Your task to perform on an android device: Open Android settings Image 0: 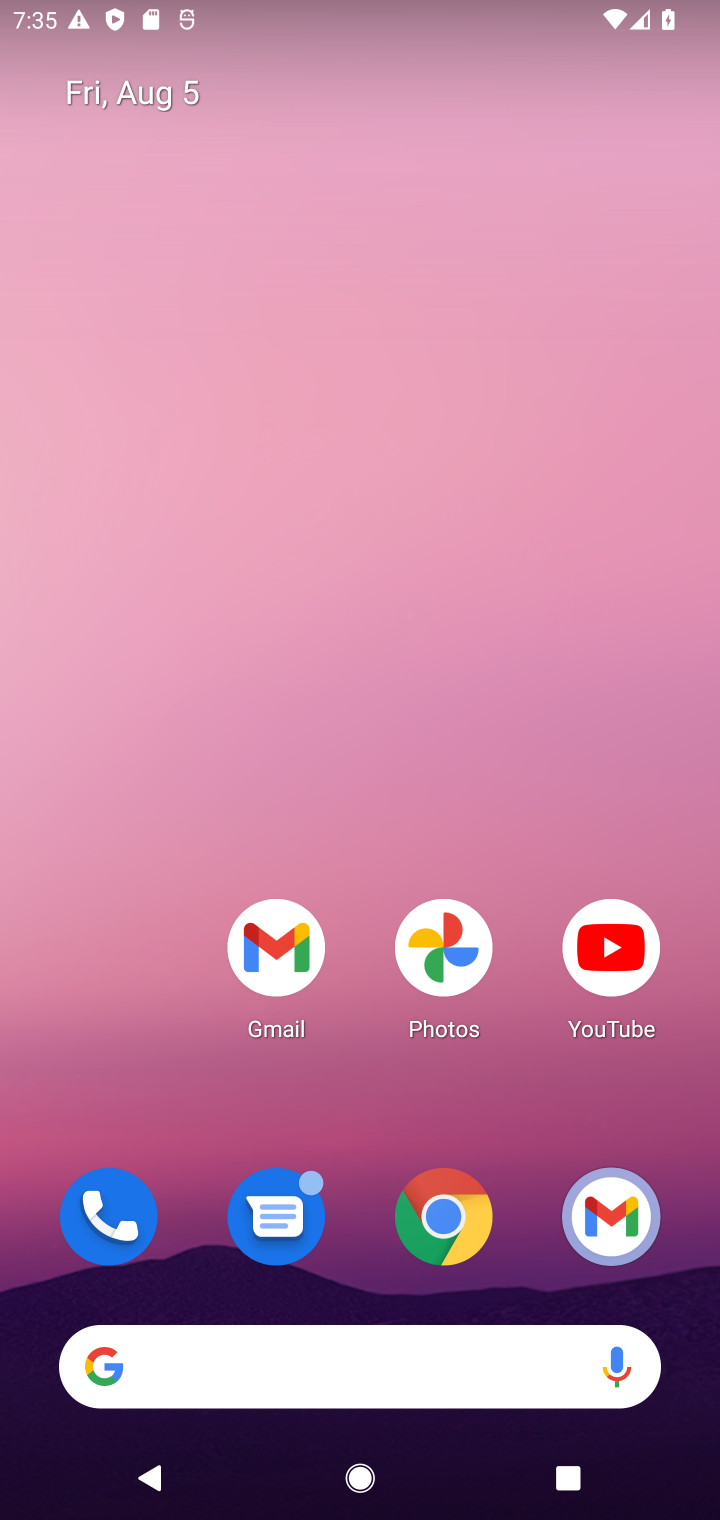
Step 0: drag from (362, 1134) to (309, 246)
Your task to perform on an android device: Open Android settings Image 1: 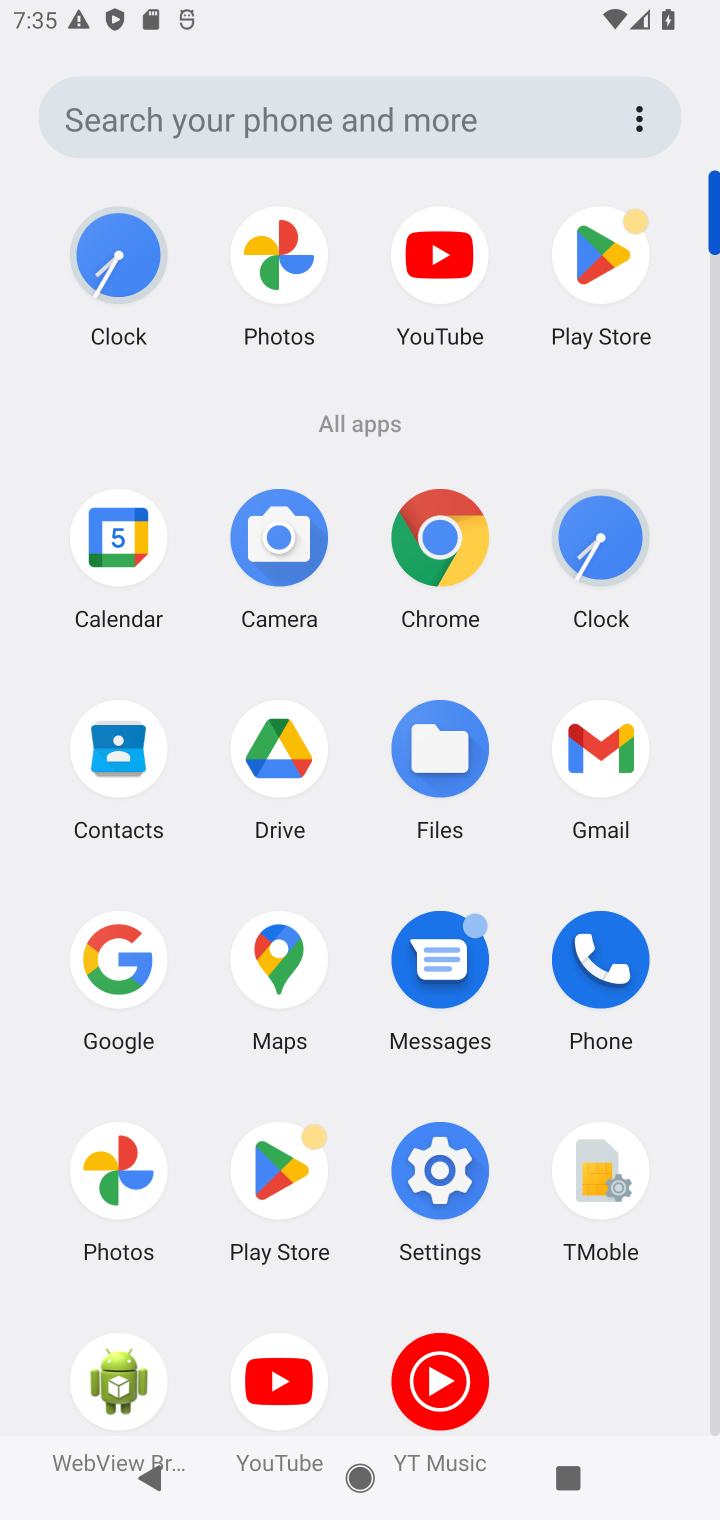
Step 1: click (441, 1189)
Your task to perform on an android device: Open Android settings Image 2: 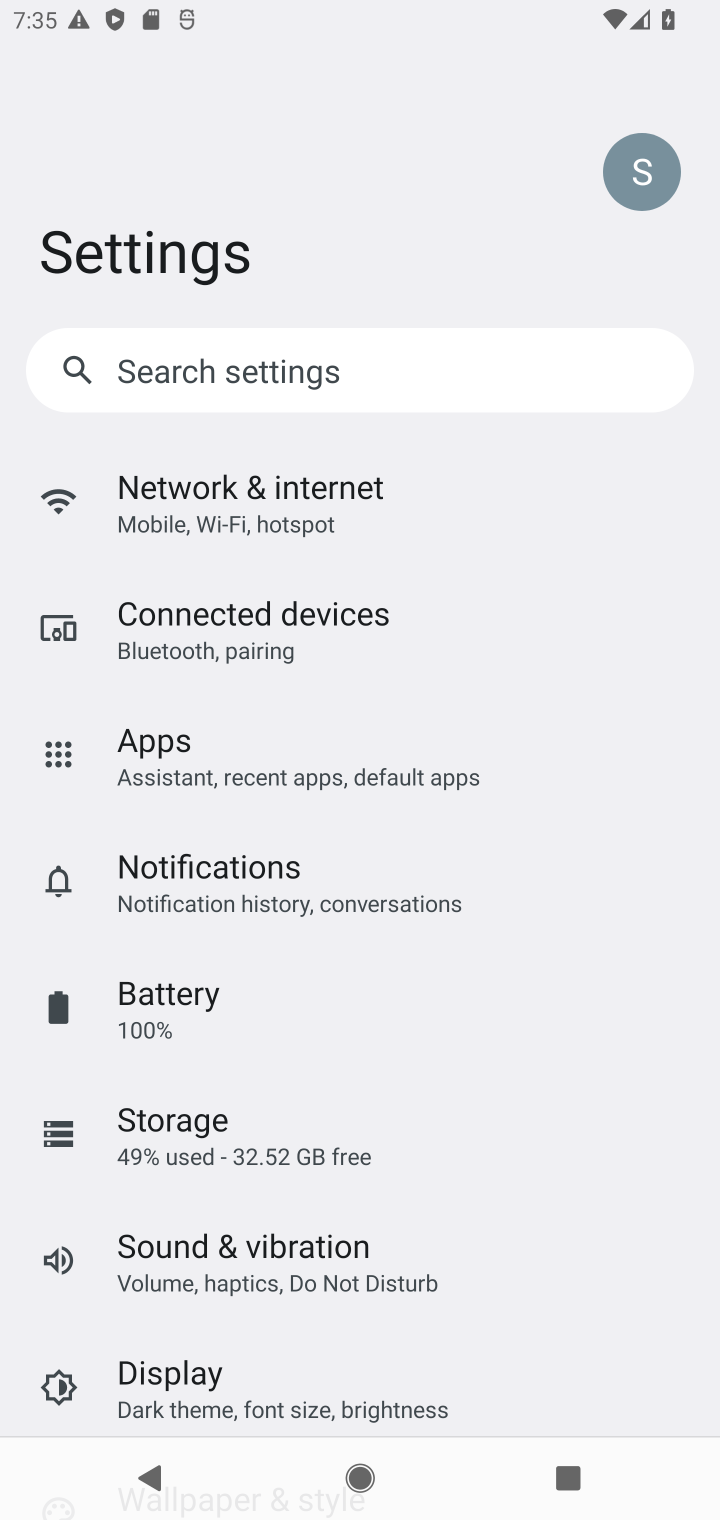
Step 2: drag from (418, 1235) to (318, 440)
Your task to perform on an android device: Open Android settings Image 3: 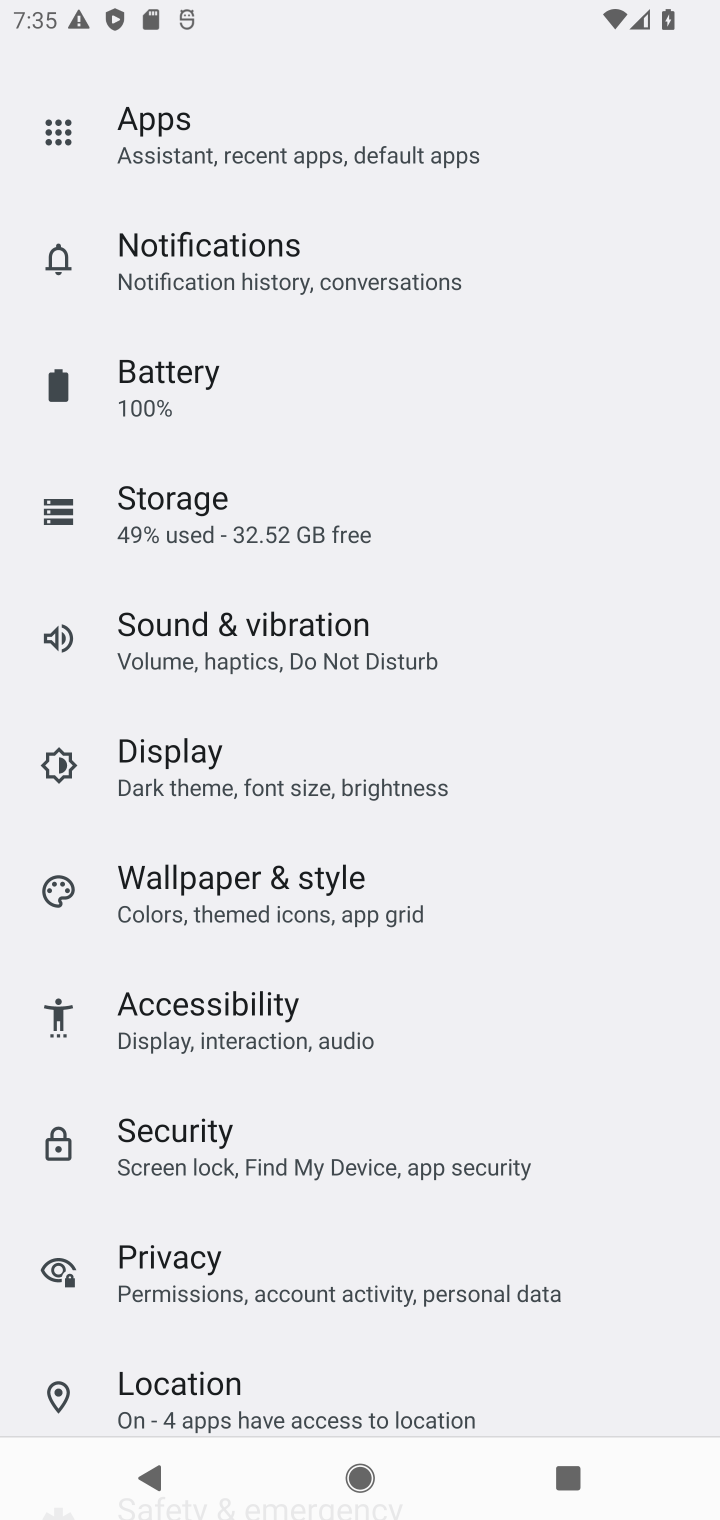
Step 3: drag from (235, 1246) to (204, 630)
Your task to perform on an android device: Open Android settings Image 4: 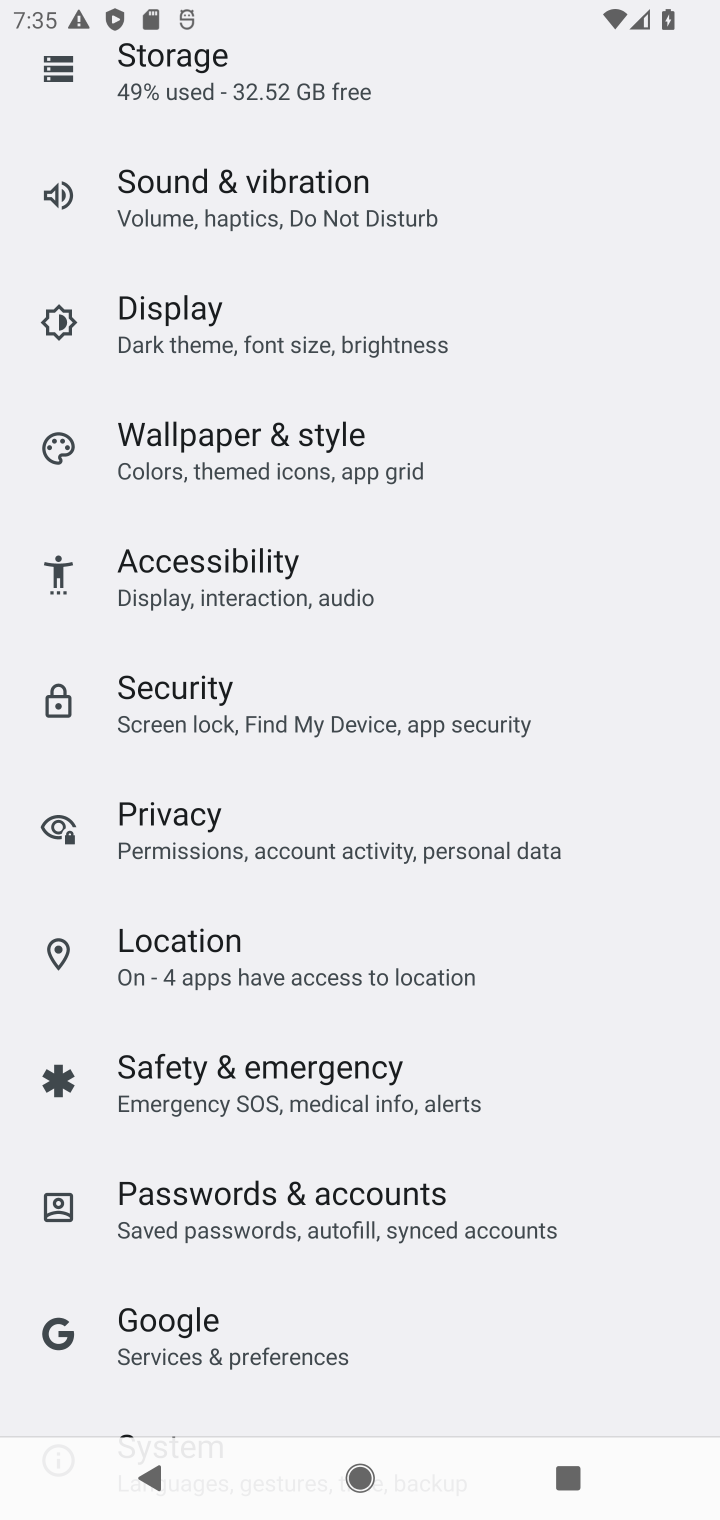
Step 4: drag from (299, 1350) to (312, 663)
Your task to perform on an android device: Open Android settings Image 5: 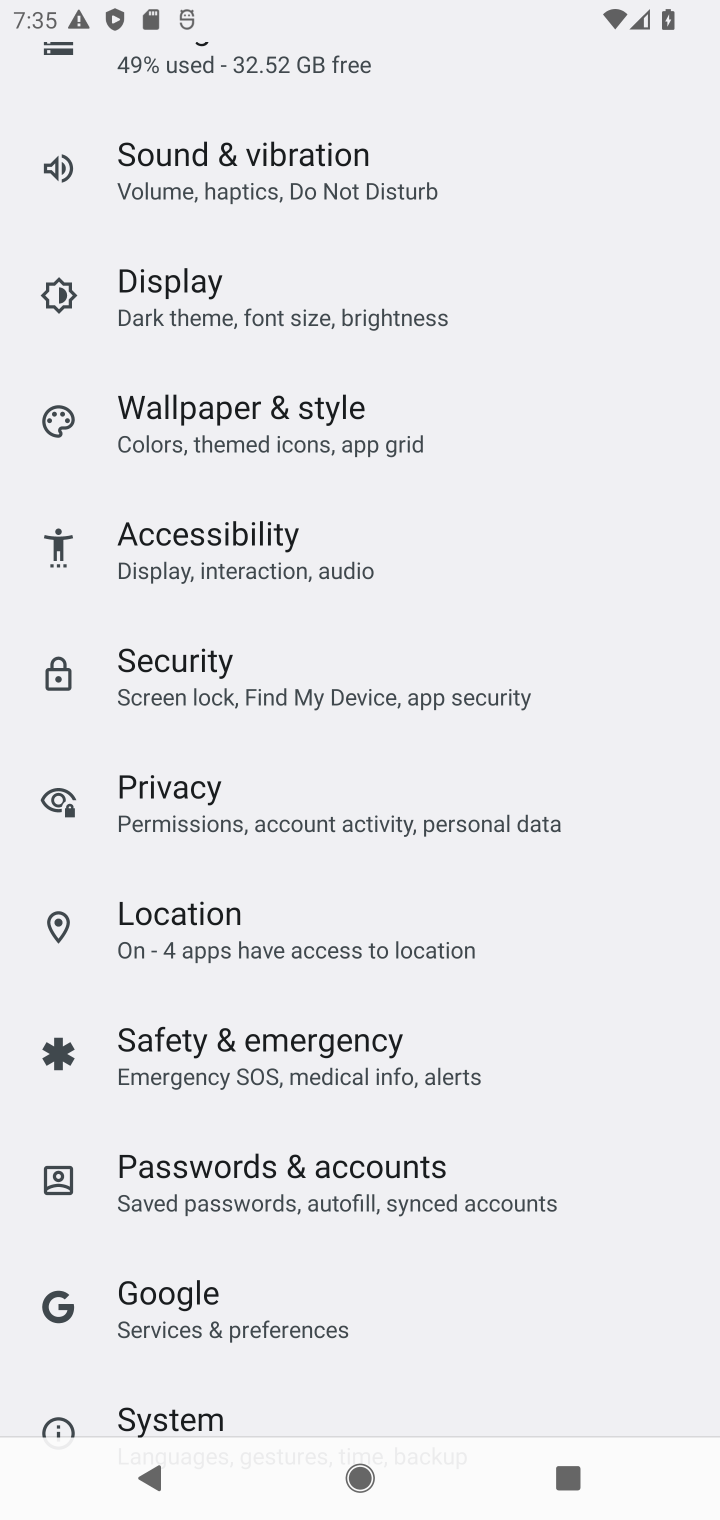
Step 5: click (242, 1408)
Your task to perform on an android device: Open Android settings Image 6: 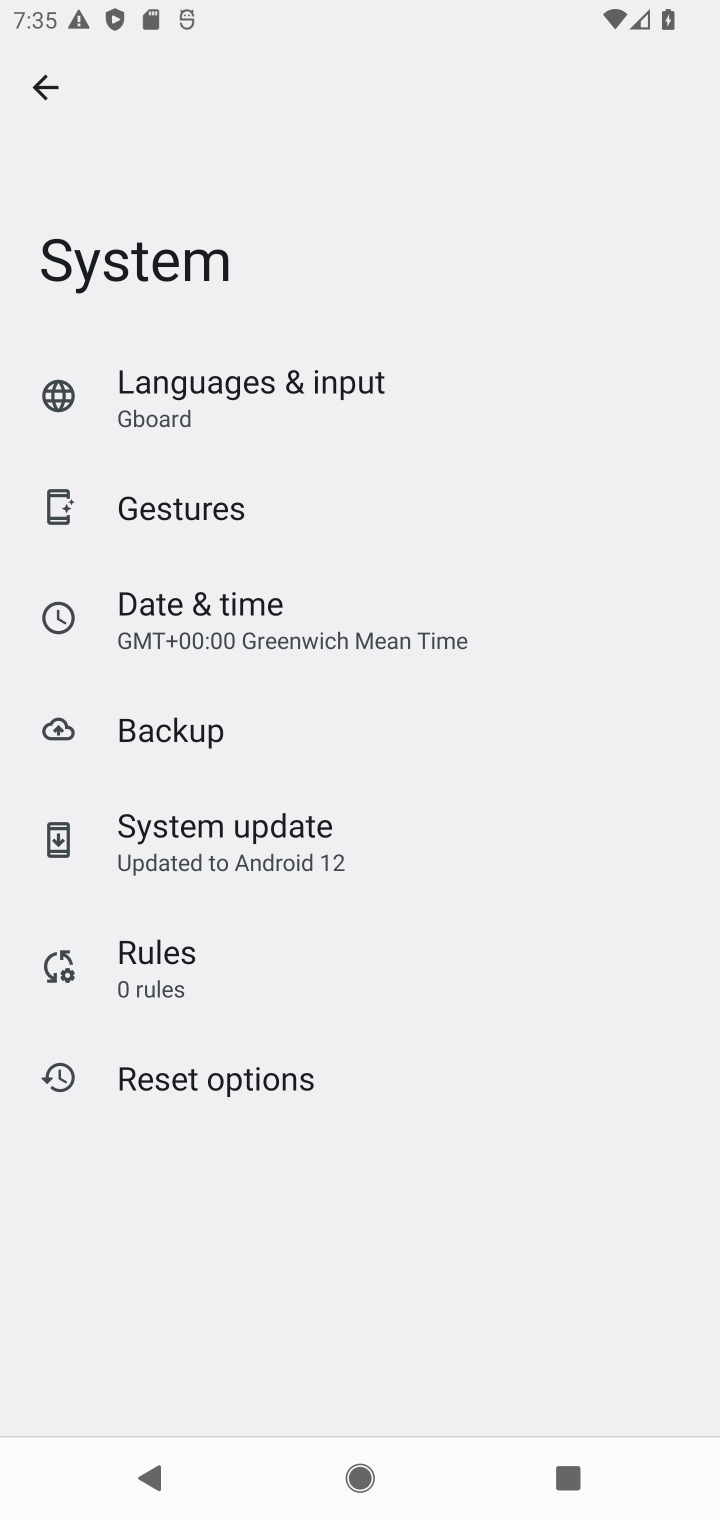
Step 6: task complete